Your task to perform on an android device: manage bookmarks in the chrome app Image 0: 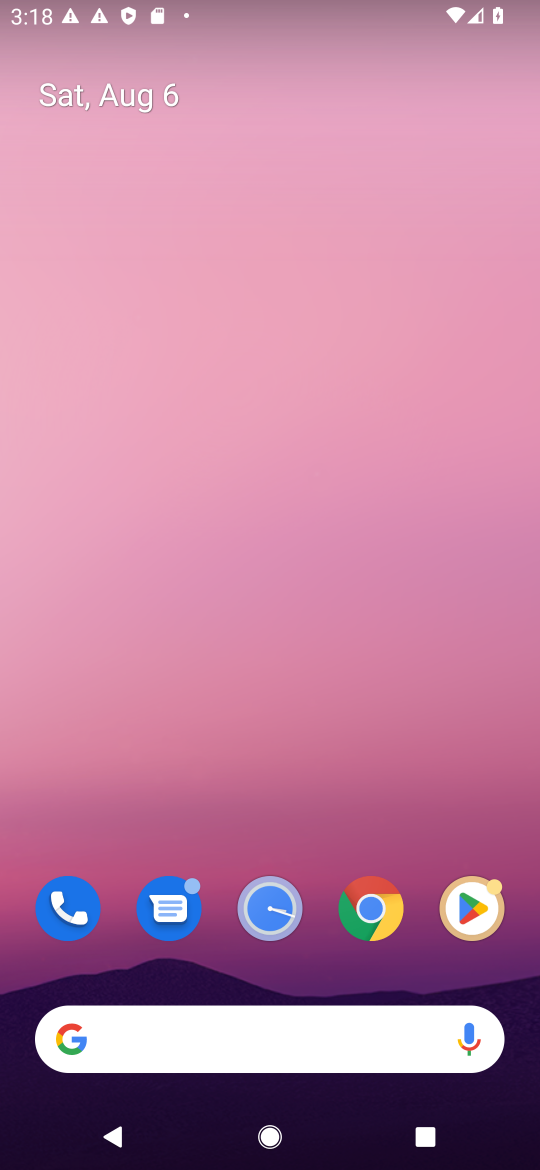
Step 0: click (372, 910)
Your task to perform on an android device: manage bookmarks in the chrome app Image 1: 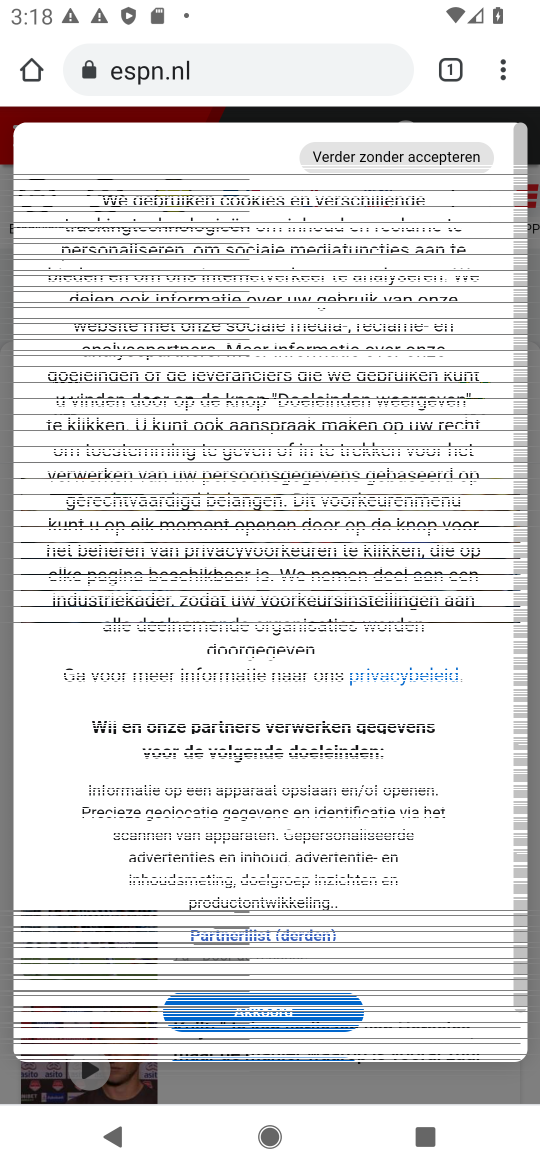
Step 1: click (499, 67)
Your task to perform on an android device: manage bookmarks in the chrome app Image 2: 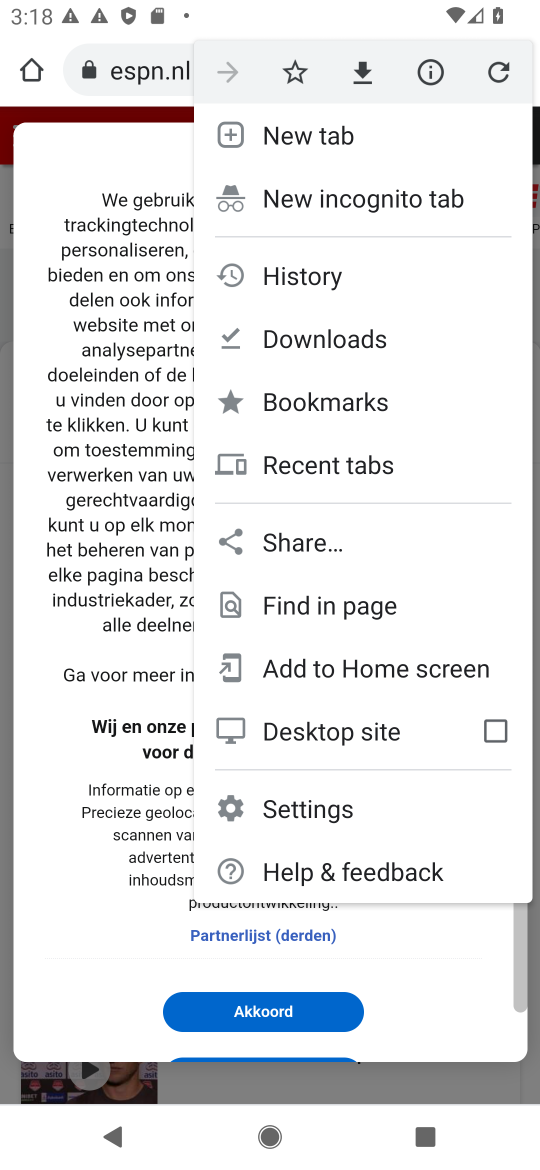
Step 2: click (300, 402)
Your task to perform on an android device: manage bookmarks in the chrome app Image 3: 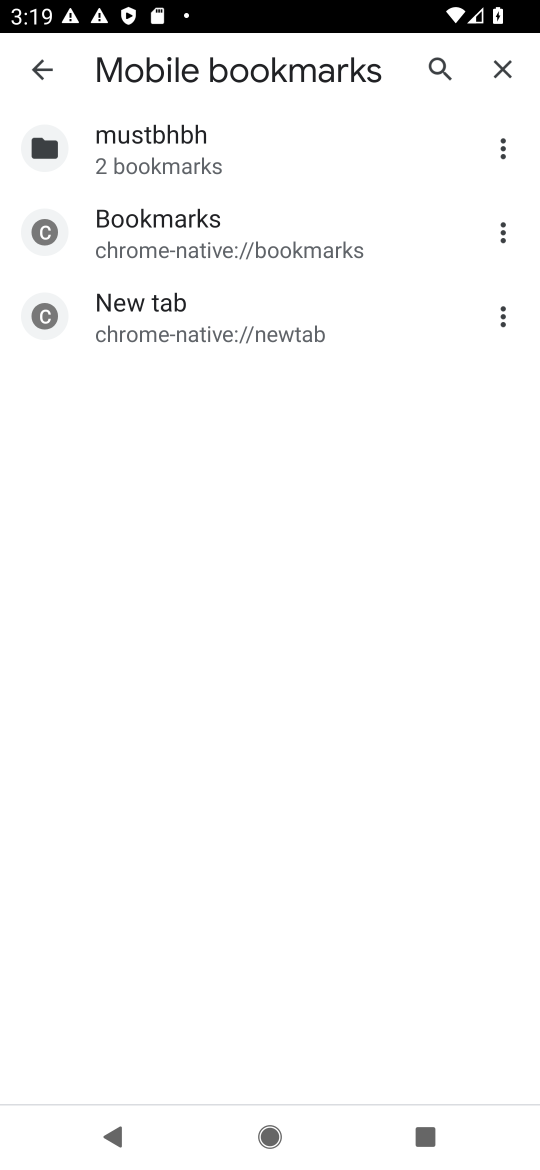
Step 3: click (507, 316)
Your task to perform on an android device: manage bookmarks in the chrome app Image 4: 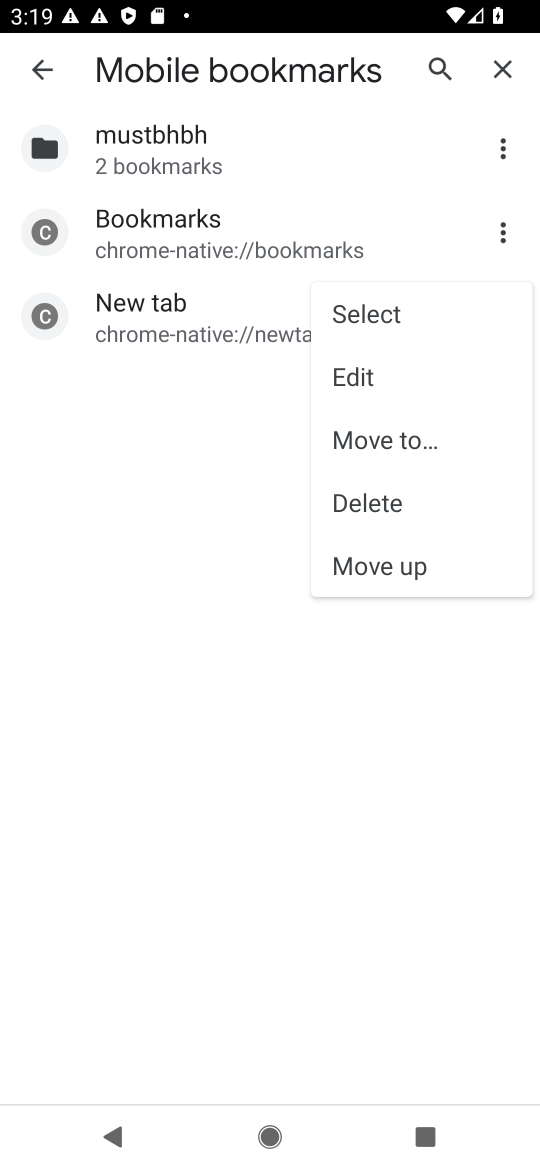
Step 4: click (359, 376)
Your task to perform on an android device: manage bookmarks in the chrome app Image 5: 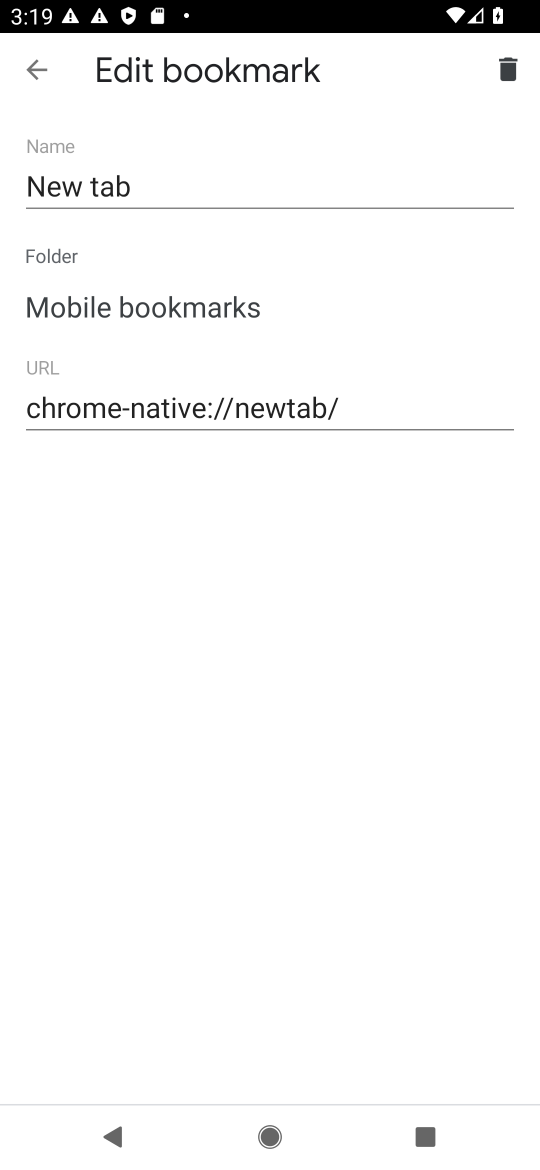
Step 5: click (106, 183)
Your task to perform on an android device: manage bookmarks in the chrome app Image 6: 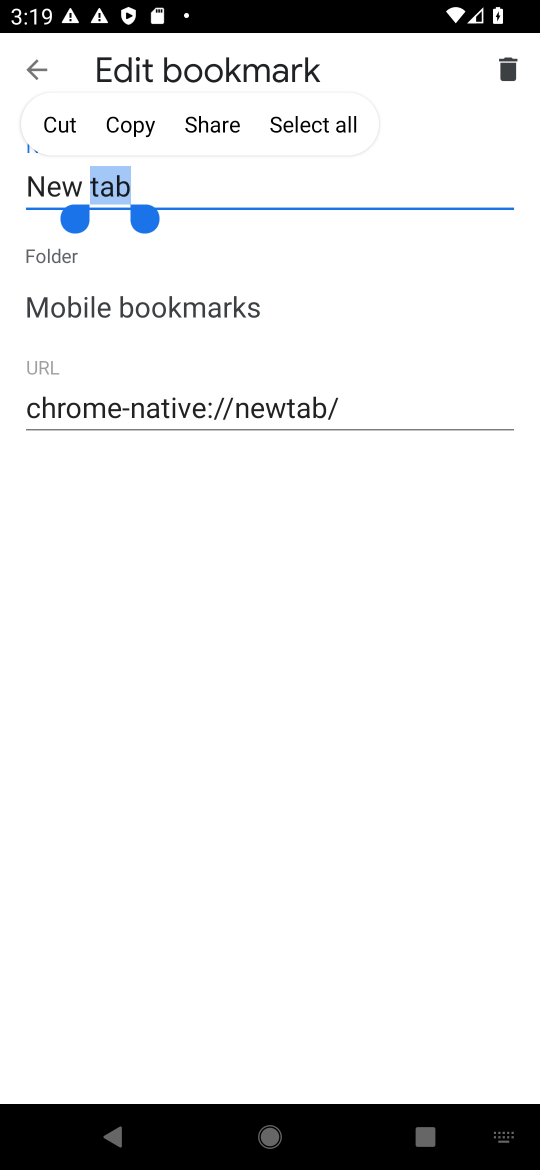
Step 6: type "page"
Your task to perform on an android device: manage bookmarks in the chrome app Image 7: 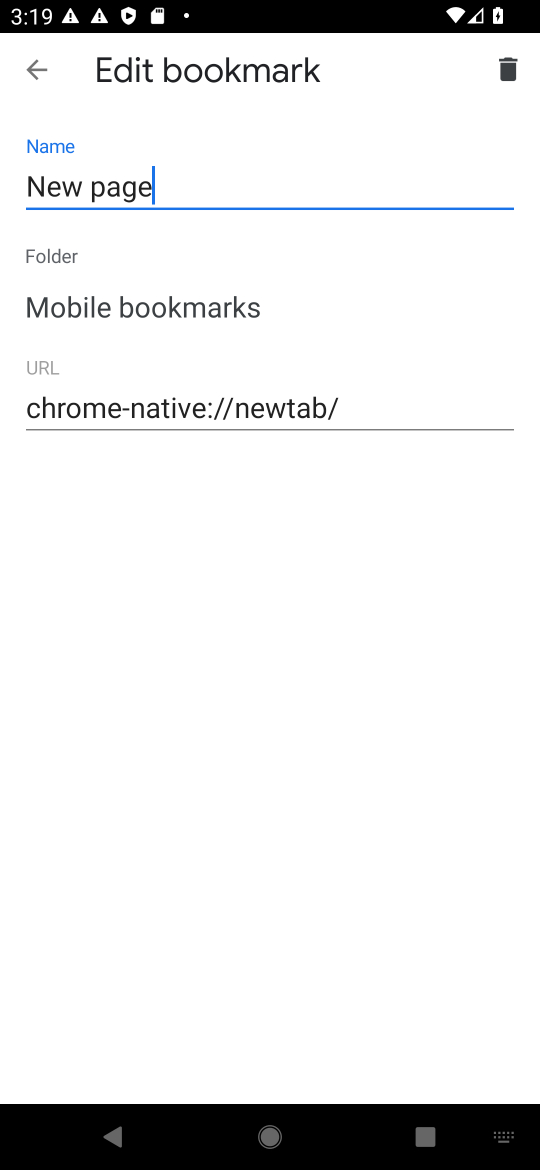
Step 7: click (34, 61)
Your task to perform on an android device: manage bookmarks in the chrome app Image 8: 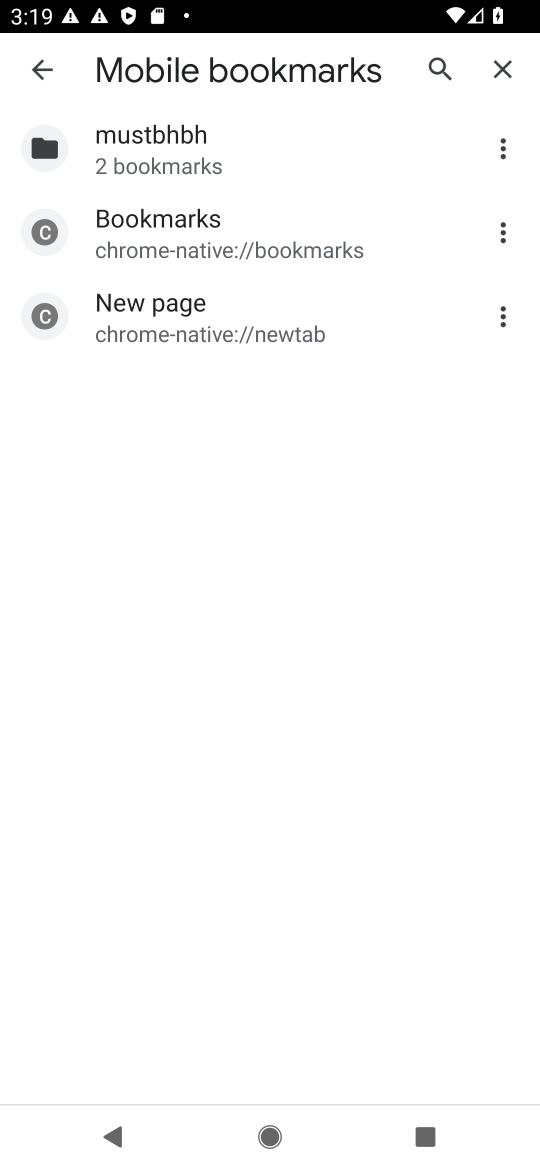
Step 8: task complete